Your task to perform on an android device: Open the Play Movies app and select the watchlist tab. Image 0: 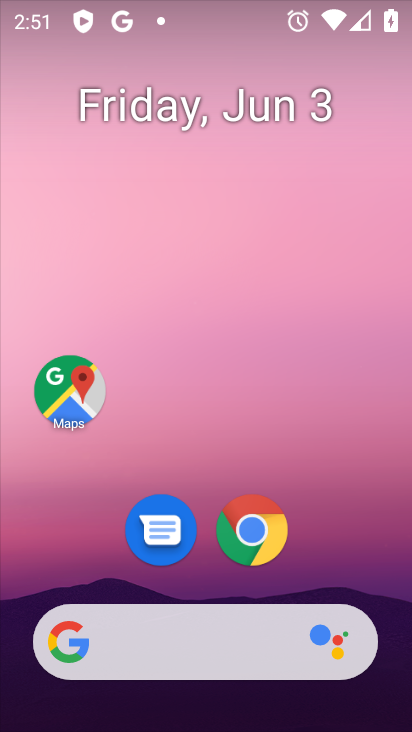
Step 0: drag from (114, 729) to (136, 145)
Your task to perform on an android device: Open the Play Movies app and select the watchlist tab. Image 1: 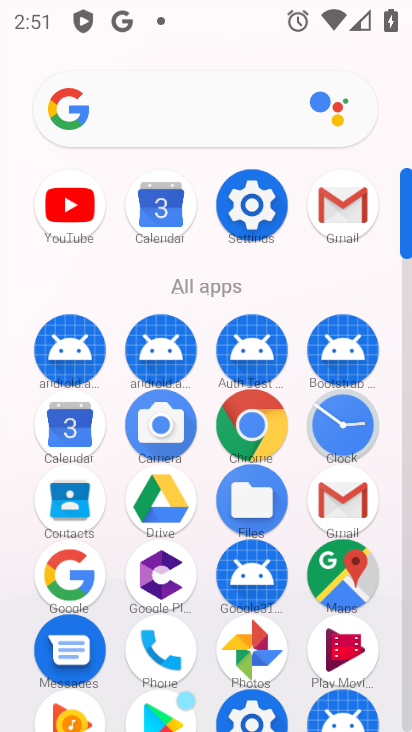
Step 1: drag from (114, 618) to (141, 374)
Your task to perform on an android device: Open the Play Movies app and select the watchlist tab. Image 2: 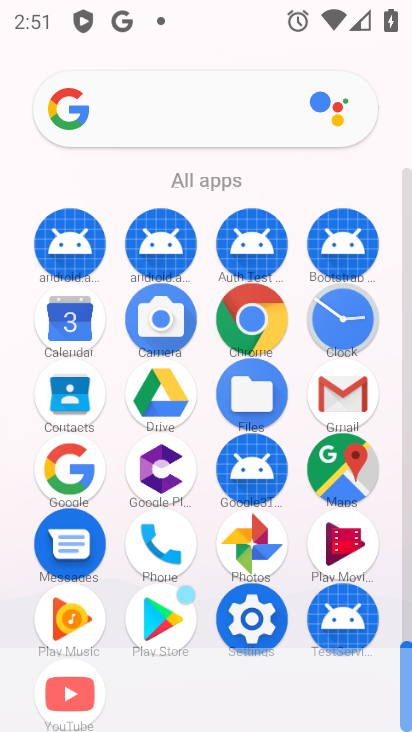
Step 2: click (351, 549)
Your task to perform on an android device: Open the Play Movies app and select the watchlist tab. Image 3: 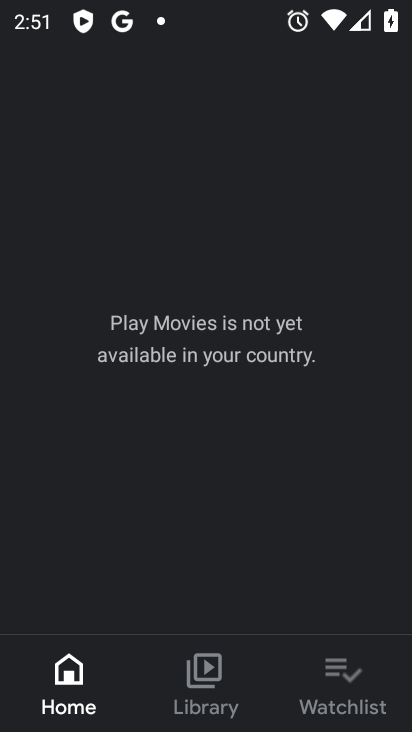
Step 3: click (352, 708)
Your task to perform on an android device: Open the Play Movies app and select the watchlist tab. Image 4: 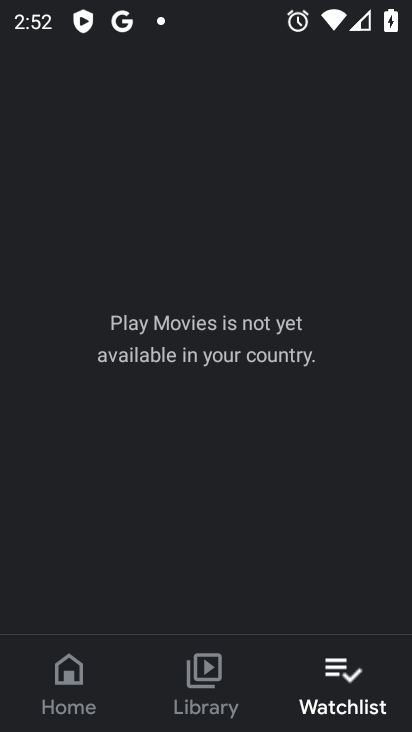
Step 4: task complete